Your task to perform on an android device: What is the news today? Image 0: 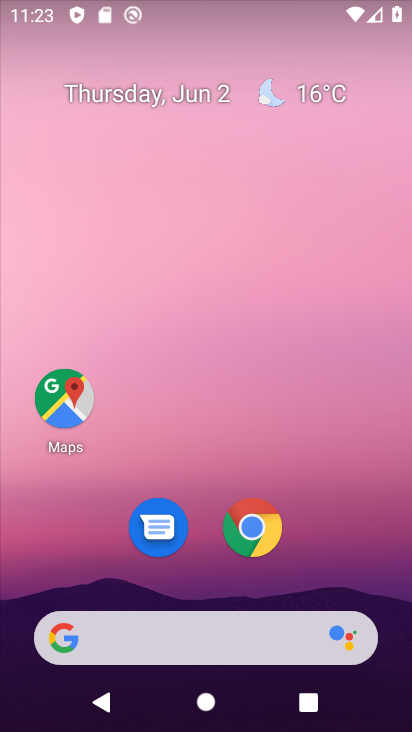
Step 0: drag from (216, 650) to (174, 111)
Your task to perform on an android device: What is the news today? Image 1: 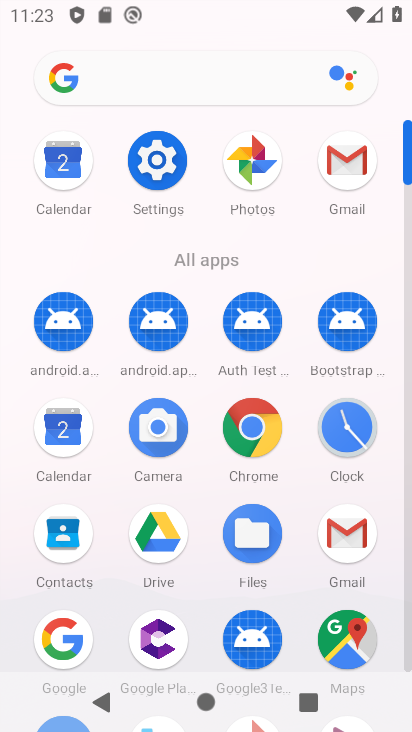
Step 1: click (72, 635)
Your task to perform on an android device: What is the news today? Image 2: 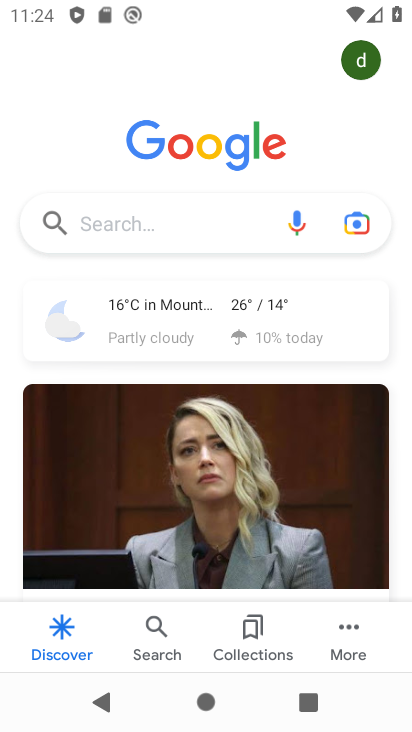
Step 2: task complete